Your task to perform on an android device: toggle priority inbox in the gmail app Image 0: 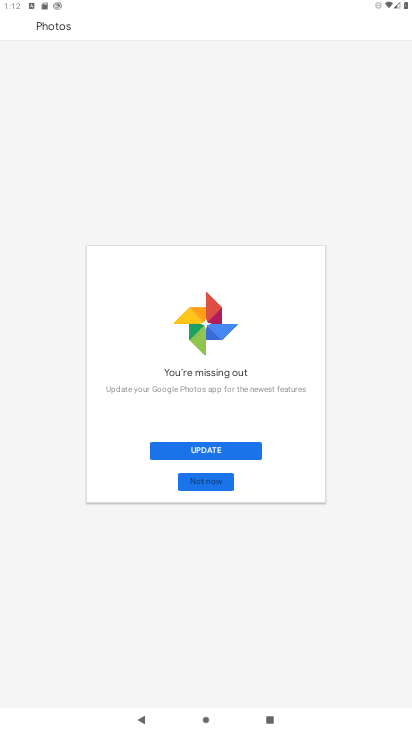
Step 0: press home button
Your task to perform on an android device: toggle priority inbox in the gmail app Image 1: 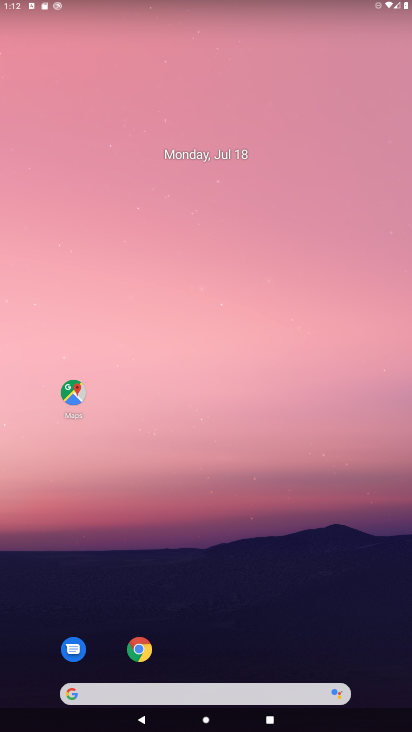
Step 1: drag from (376, 663) to (345, 109)
Your task to perform on an android device: toggle priority inbox in the gmail app Image 2: 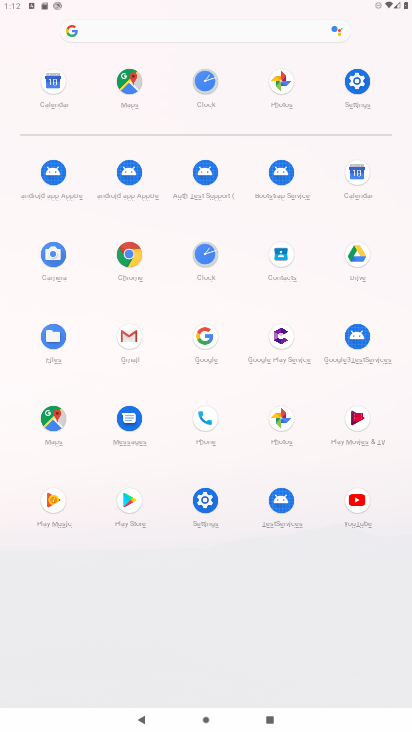
Step 2: click (126, 335)
Your task to perform on an android device: toggle priority inbox in the gmail app Image 3: 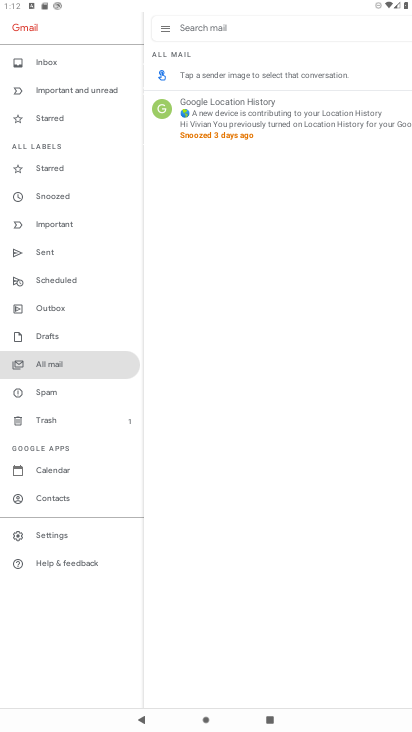
Step 3: click (55, 530)
Your task to perform on an android device: toggle priority inbox in the gmail app Image 4: 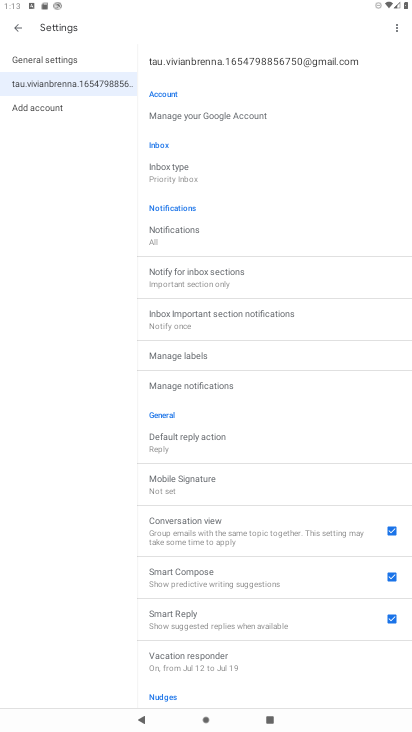
Step 4: click (173, 168)
Your task to perform on an android device: toggle priority inbox in the gmail app Image 5: 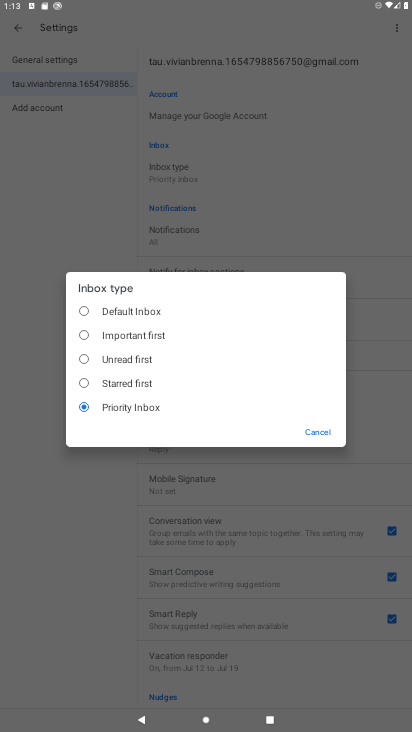
Step 5: click (81, 337)
Your task to perform on an android device: toggle priority inbox in the gmail app Image 6: 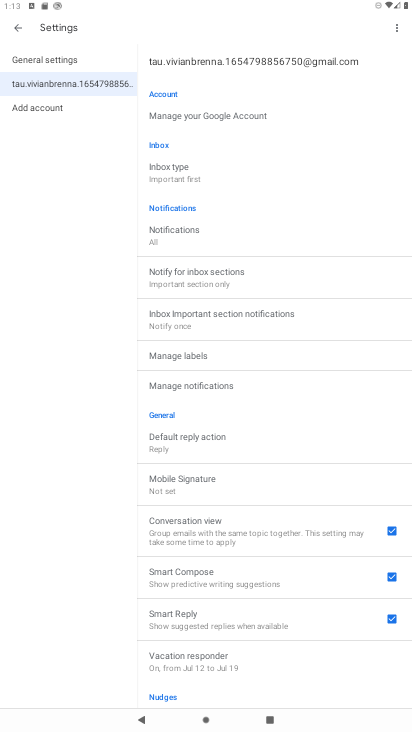
Step 6: task complete